Your task to perform on an android device: change notification settings in the gmail app Image 0: 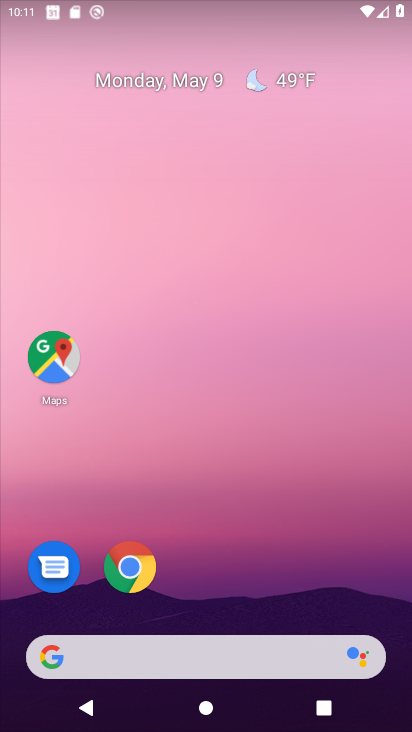
Step 0: click (130, 571)
Your task to perform on an android device: change notification settings in the gmail app Image 1: 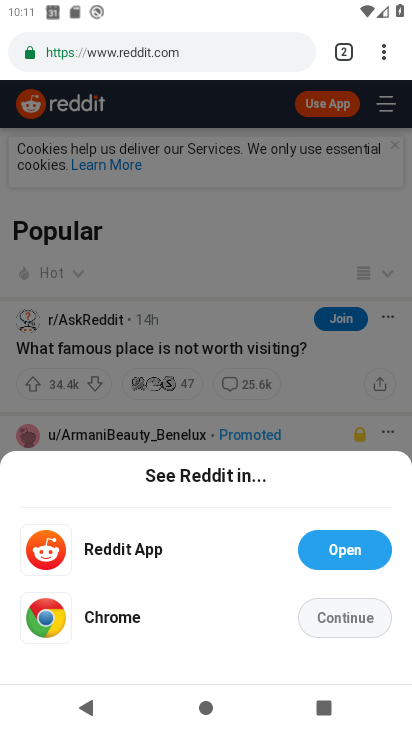
Step 1: press home button
Your task to perform on an android device: change notification settings in the gmail app Image 2: 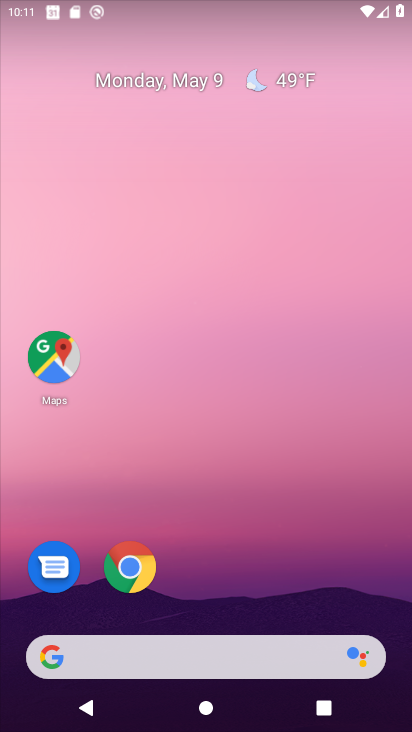
Step 2: drag from (208, 640) to (199, 146)
Your task to perform on an android device: change notification settings in the gmail app Image 3: 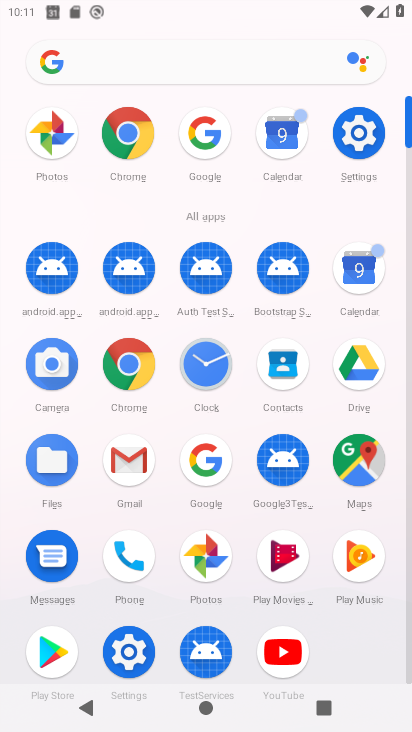
Step 3: click (111, 464)
Your task to perform on an android device: change notification settings in the gmail app Image 4: 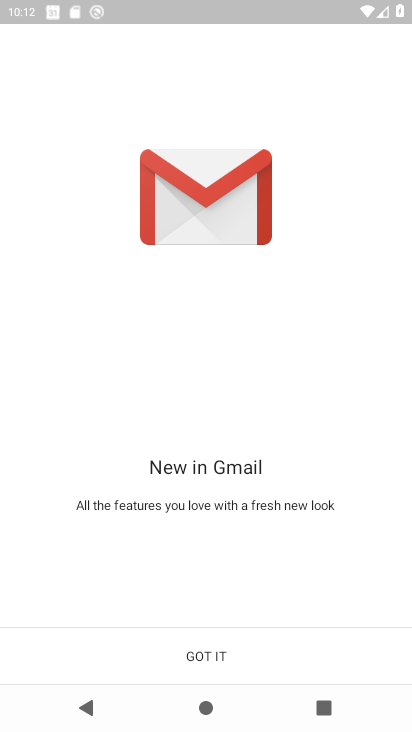
Step 4: click (218, 657)
Your task to perform on an android device: change notification settings in the gmail app Image 5: 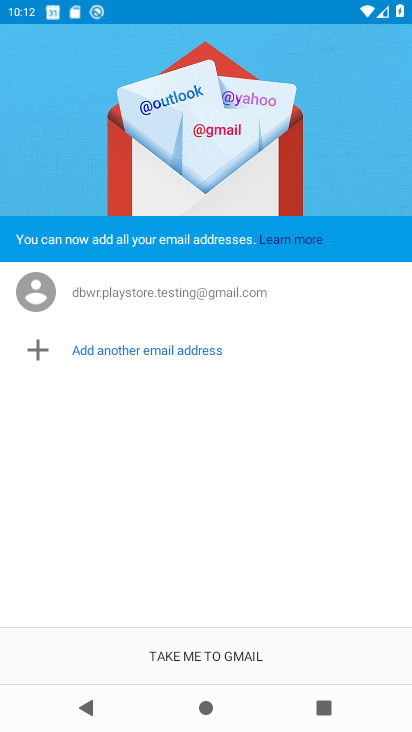
Step 5: click (174, 658)
Your task to perform on an android device: change notification settings in the gmail app Image 6: 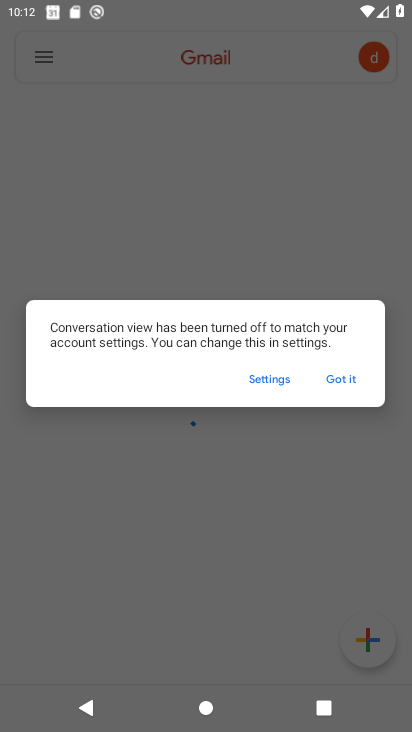
Step 6: click (341, 382)
Your task to perform on an android device: change notification settings in the gmail app Image 7: 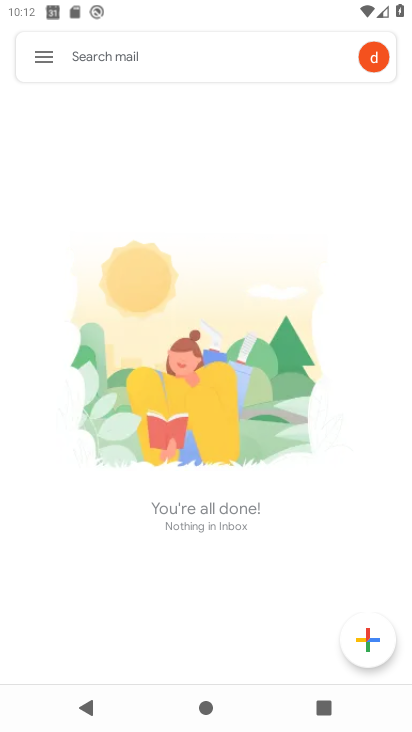
Step 7: click (34, 65)
Your task to perform on an android device: change notification settings in the gmail app Image 8: 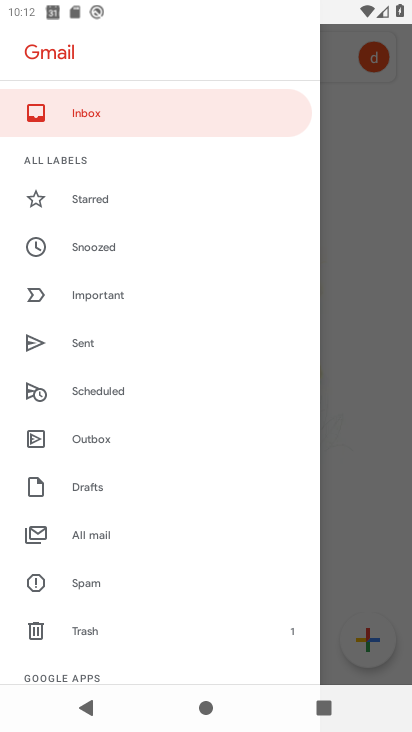
Step 8: drag from (87, 640) to (126, 248)
Your task to perform on an android device: change notification settings in the gmail app Image 9: 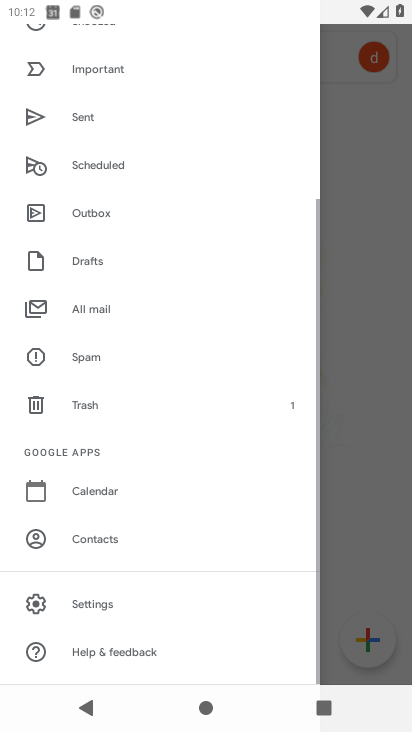
Step 9: click (114, 601)
Your task to perform on an android device: change notification settings in the gmail app Image 10: 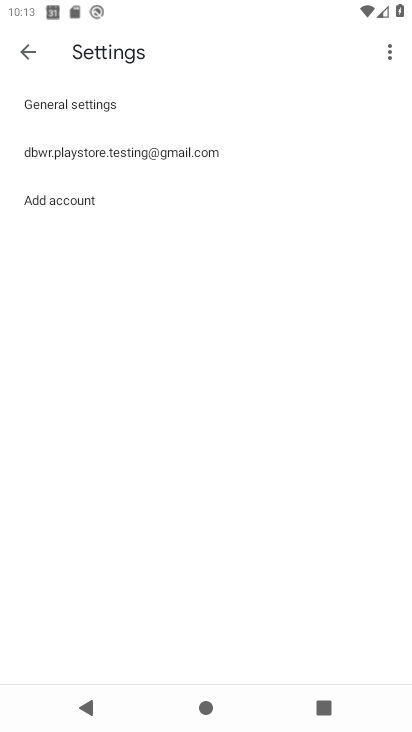
Step 10: click (89, 103)
Your task to perform on an android device: change notification settings in the gmail app Image 11: 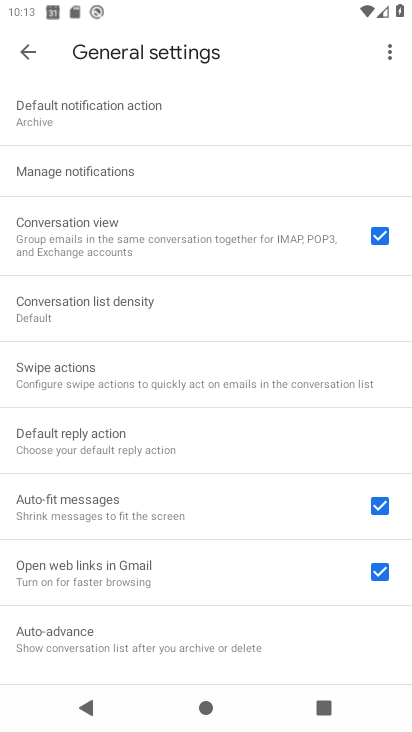
Step 11: click (96, 160)
Your task to perform on an android device: change notification settings in the gmail app Image 12: 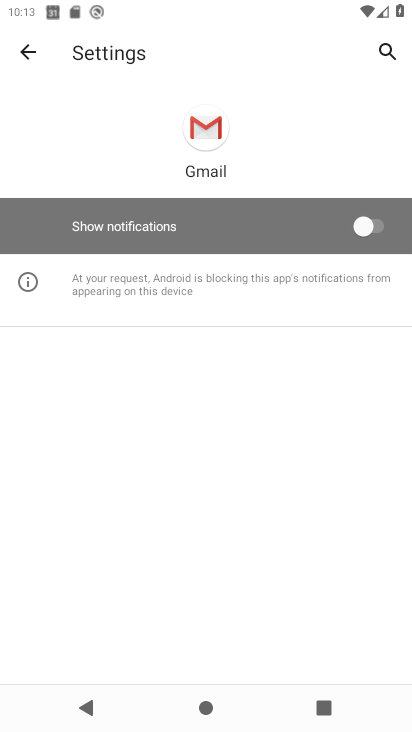
Step 12: click (382, 226)
Your task to perform on an android device: change notification settings in the gmail app Image 13: 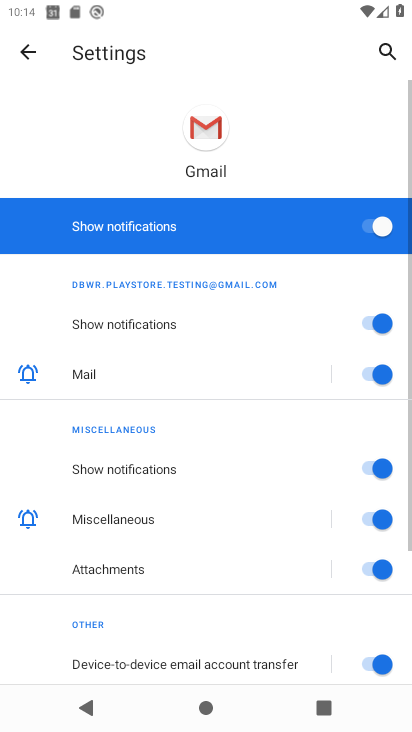
Step 13: task complete